Your task to perform on an android device: Open maps Image 0: 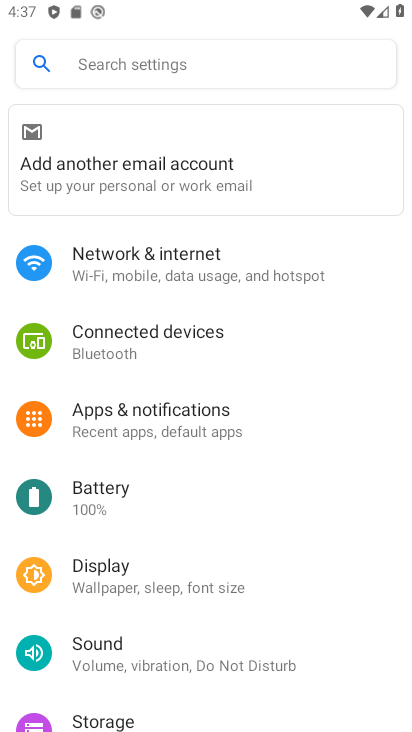
Step 0: press back button
Your task to perform on an android device: Open maps Image 1: 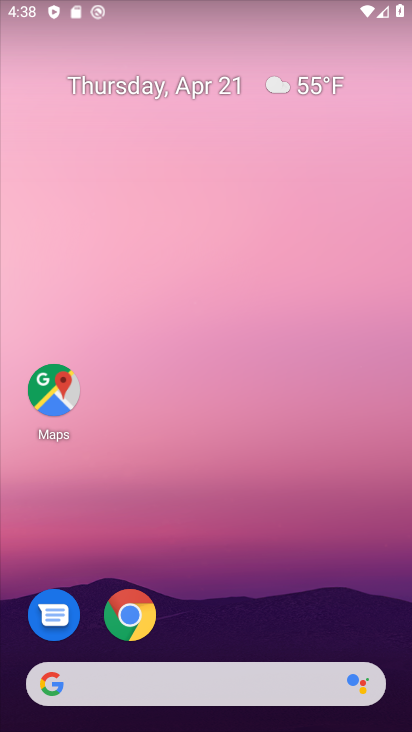
Step 1: drag from (310, 567) to (226, 36)
Your task to perform on an android device: Open maps Image 2: 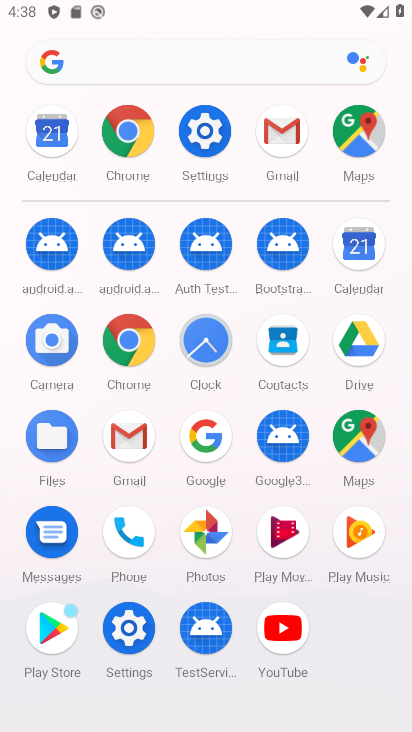
Step 2: click (362, 433)
Your task to perform on an android device: Open maps Image 3: 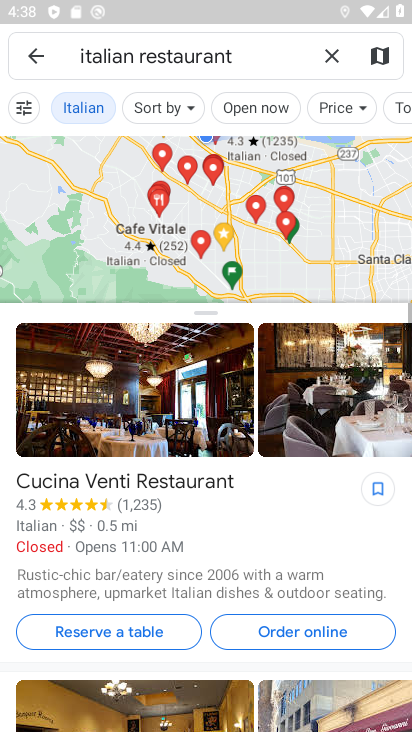
Step 3: click (28, 49)
Your task to perform on an android device: Open maps Image 4: 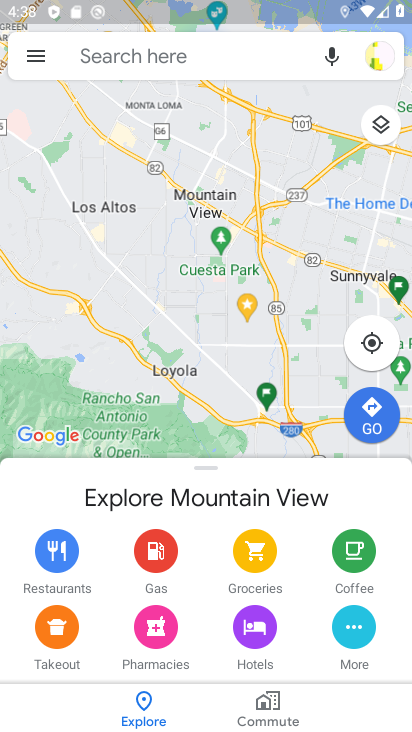
Step 4: click (32, 46)
Your task to perform on an android device: Open maps Image 5: 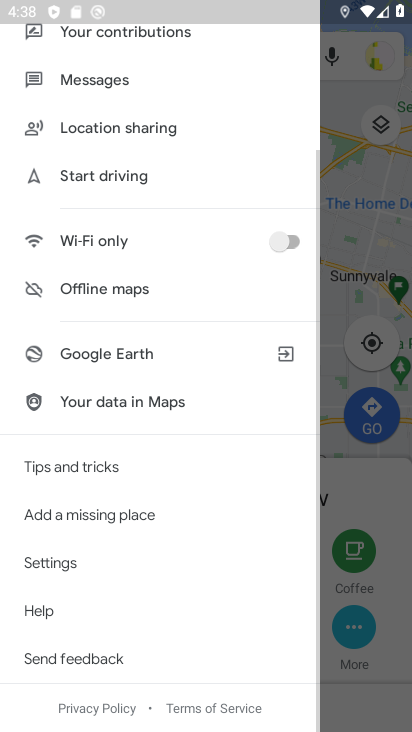
Step 5: drag from (154, 138) to (191, 502)
Your task to perform on an android device: Open maps Image 6: 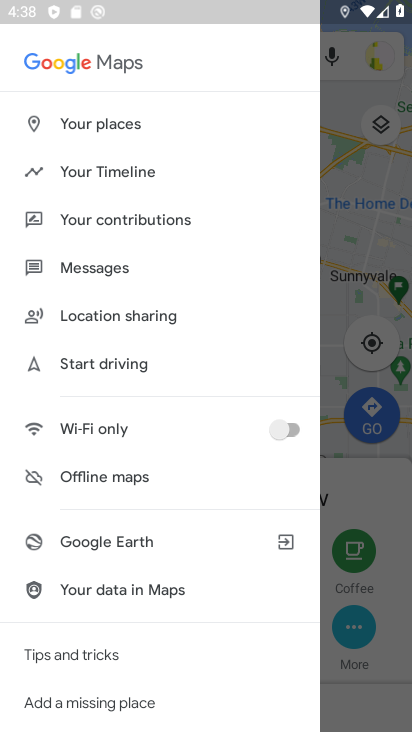
Step 6: click (347, 173)
Your task to perform on an android device: Open maps Image 7: 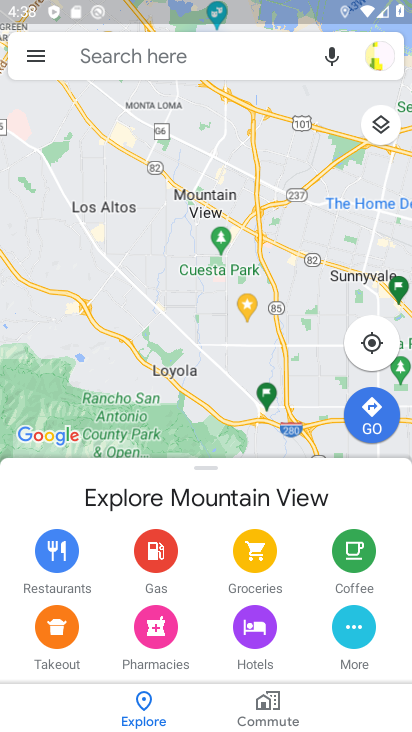
Step 7: task complete